Your task to perform on an android device: What's US dollar exchange rate against the Japanese Yen? Image 0: 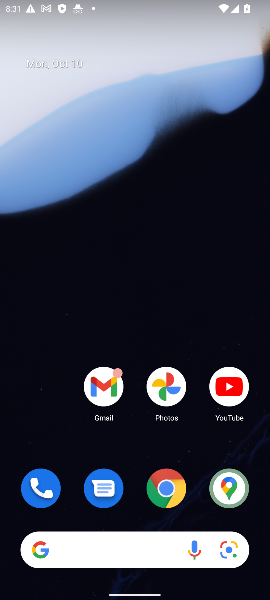
Step 0: drag from (138, 447) to (122, 13)
Your task to perform on an android device: What's US dollar exchange rate against the Japanese Yen? Image 1: 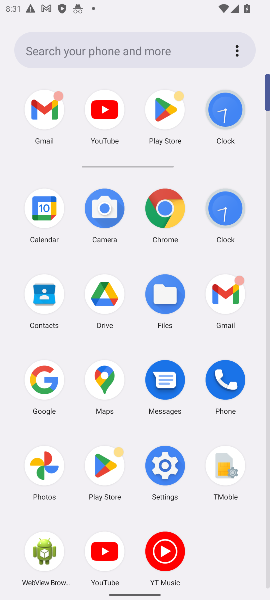
Step 1: click (165, 209)
Your task to perform on an android device: What's US dollar exchange rate against the Japanese Yen? Image 2: 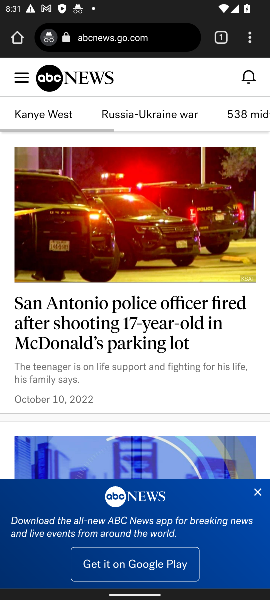
Step 2: click (151, 35)
Your task to perform on an android device: What's US dollar exchange rate against the Japanese Yen? Image 3: 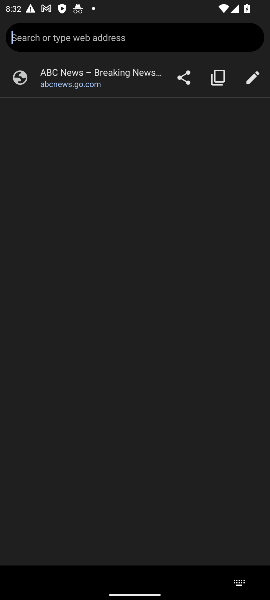
Step 3: type "What's US dollar exchange rate against the Japanese Yen?"
Your task to perform on an android device: What's US dollar exchange rate against the Japanese Yen? Image 4: 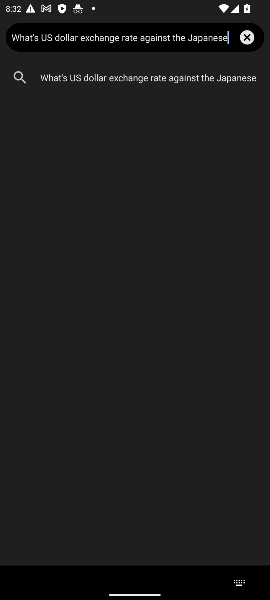
Step 4: press enter
Your task to perform on an android device: What's US dollar exchange rate against the Japanese Yen? Image 5: 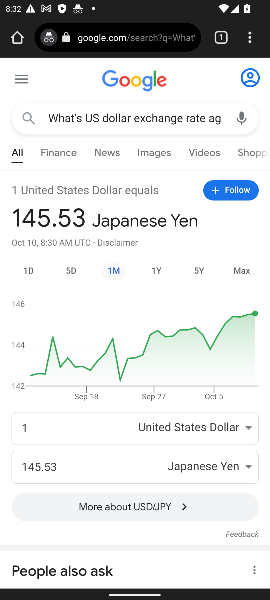
Step 5: task complete